Your task to perform on an android device: check out phone information Image 0: 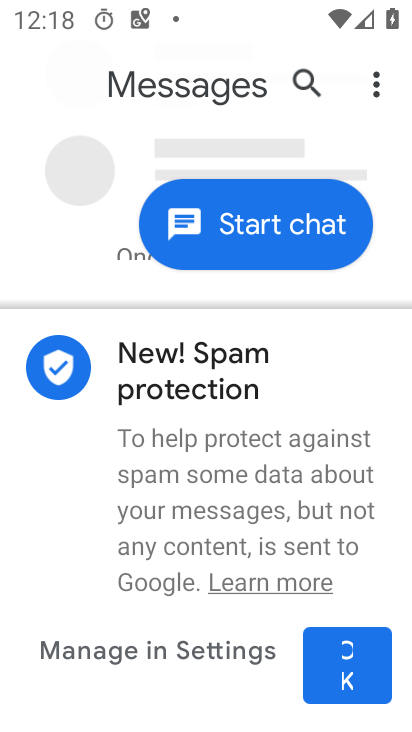
Step 0: press home button
Your task to perform on an android device: check out phone information Image 1: 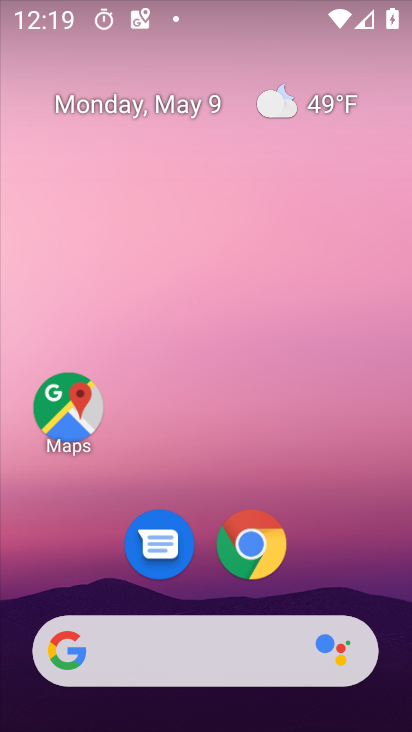
Step 1: drag from (329, 647) to (257, 14)
Your task to perform on an android device: check out phone information Image 2: 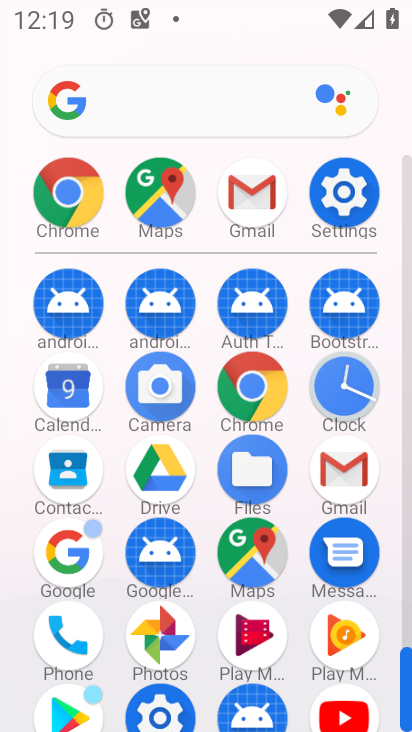
Step 2: click (362, 213)
Your task to perform on an android device: check out phone information Image 3: 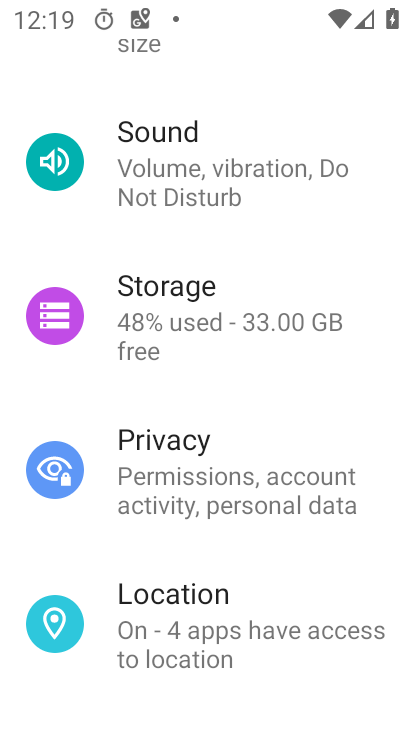
Step 3: drag from (289, 693) to (299, 103)
Your task to perform on an android device: check out phone information Image 4: 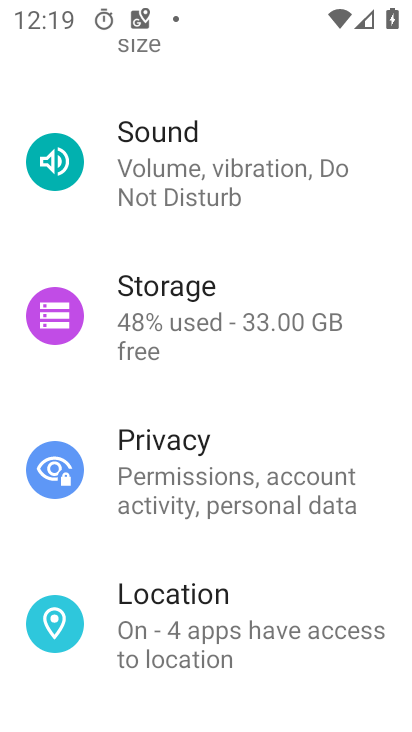
Step 4: drag from (241, 685) to (264, 135)
Your task to perform on an android device: check out phone information Image 5: 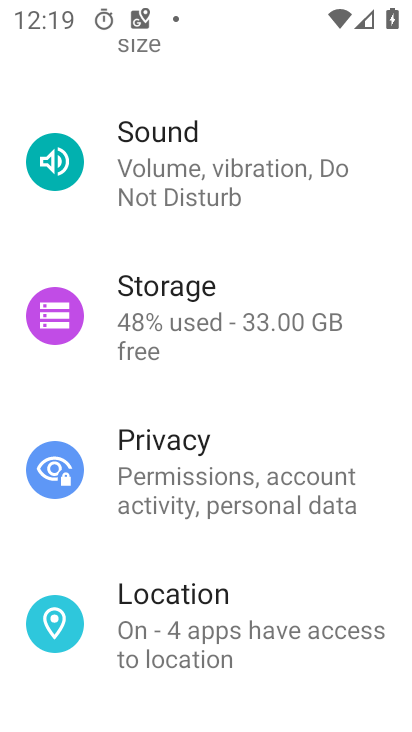
Step 5: drag from (251, 654) to (269, 129)
Your task to perform on an android device: check out phone information Image 6: 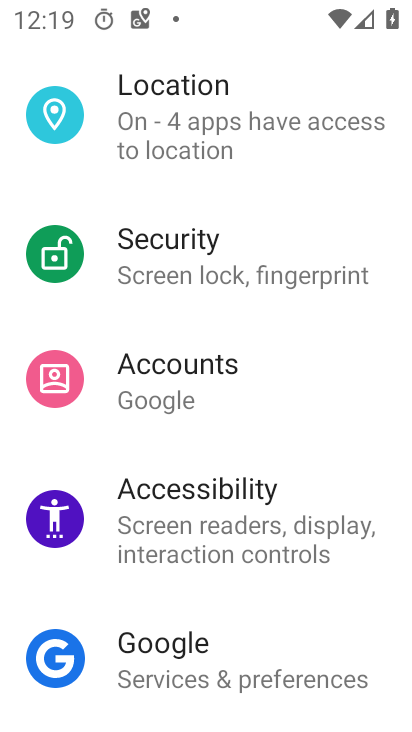
Step 6: drag from (278, 710) to (201, 180)
Your task to perform on an android device: check out phone information Image 7: 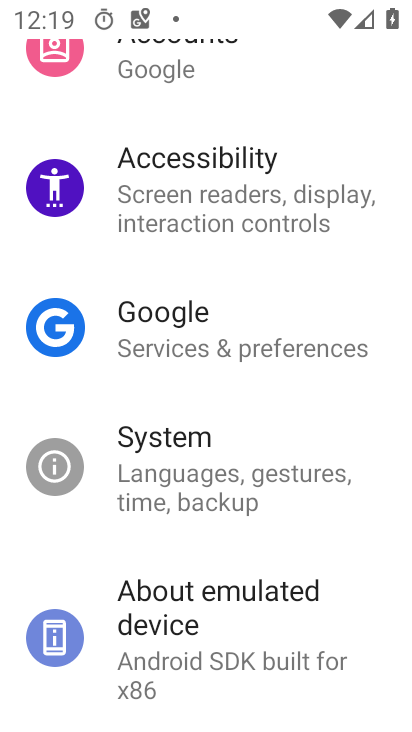
Step 7: click (268, 617)
Your task to perform on an android device: check out phone information Image 8: 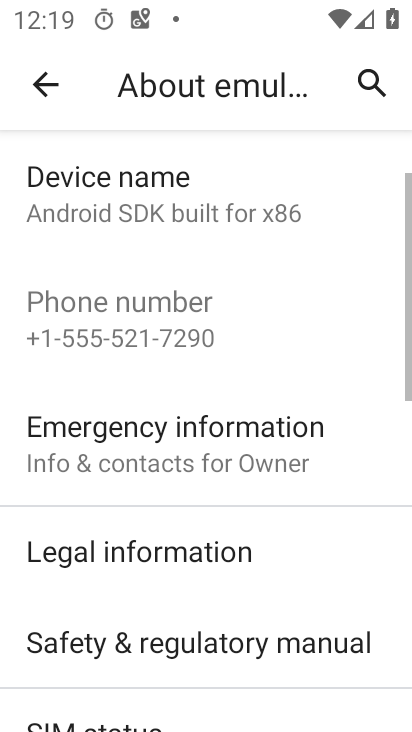
Step 8: task complete